Your task to perform on an android device: Search for Italian restaurants on Maps Image 0: 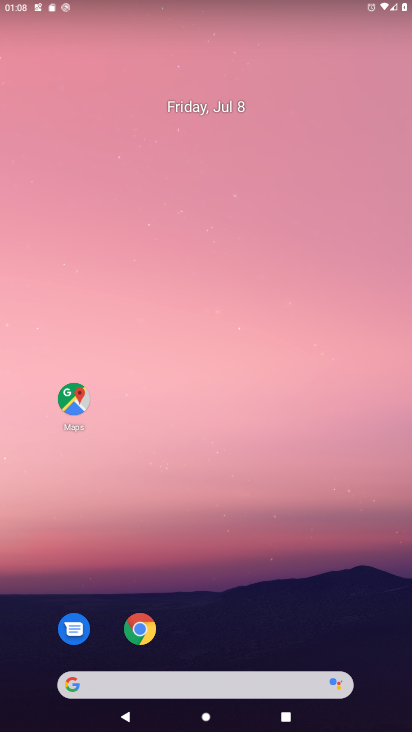
Step 0: click (78, 388)
Your task to perform on an android device: Search for Italian restaurants on Maps Image 1: 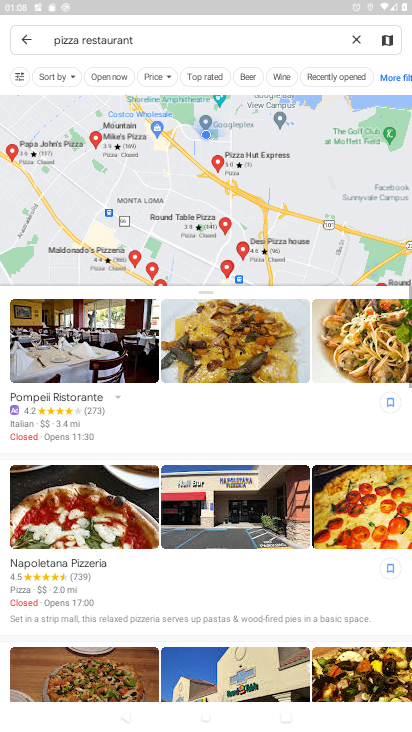
Step 1: click (359, 42)
Your task to perform on an android device: Search for Italian restaurants on Maps Image 2: 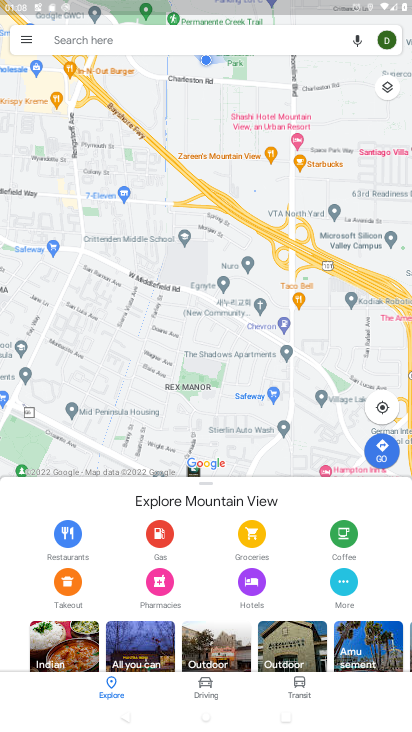
Step 2: click (134, 37)
Your task to perform on an android device: Search for Italian restaurants on Maps Image 3: 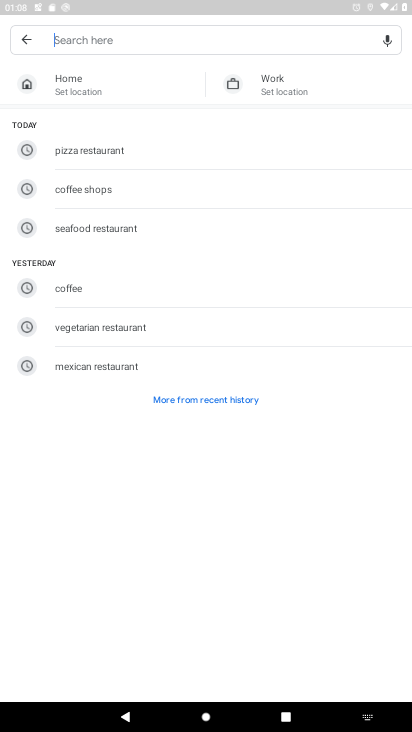
Step 3: type "italian restaurants"
Your task to perform on an android device: Search for Italian restaurants on Maps Image 4: 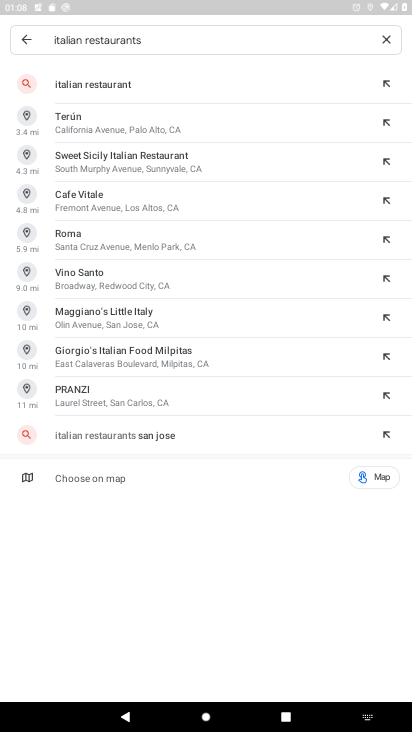
Step 4: click (157, 86)
Your task to perform on an android device: Search for Italian restaurants on Maps Image 5: 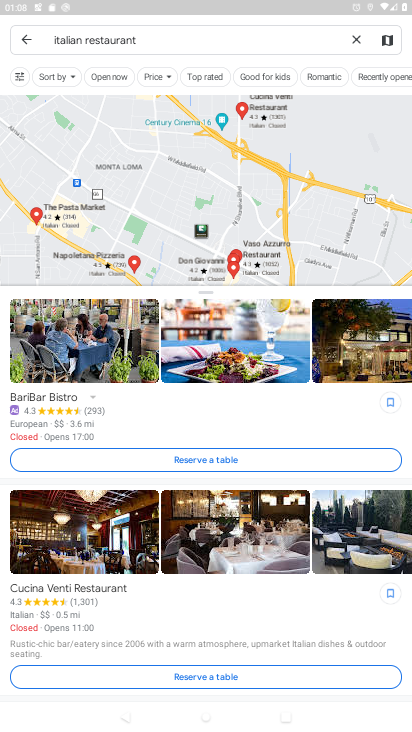
Step 5: task complete